Your task to perform on an android device: Go to battery settings Image 0: 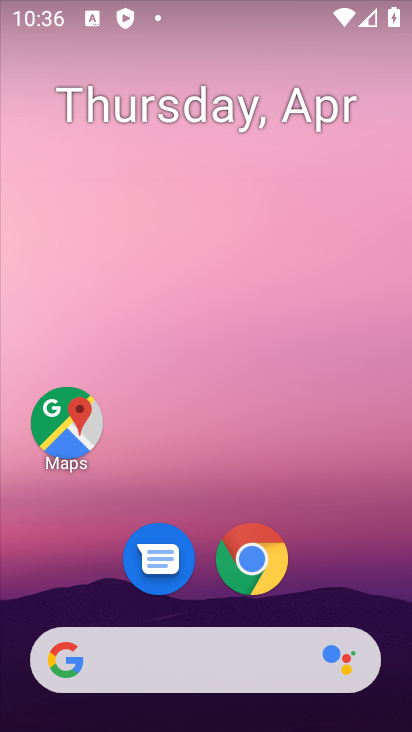
Step 0: drag from (280, 721) to (285, 125)
Your task to perform on an android device: Go to battery settings Image 1: 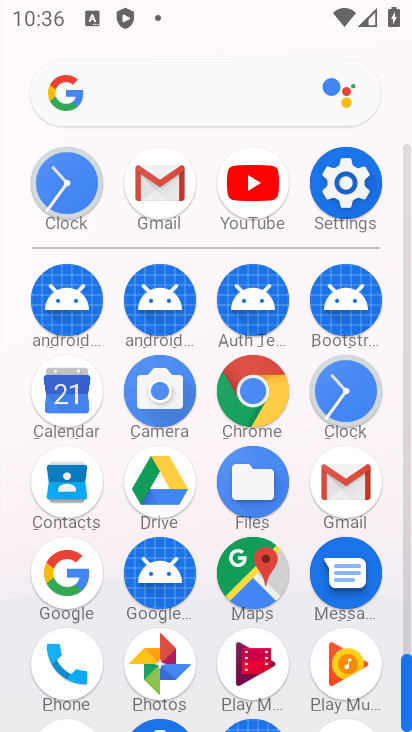
Step 1: click (352, 182)
Your task to perform on an android device: Go to battery settings Image 2: 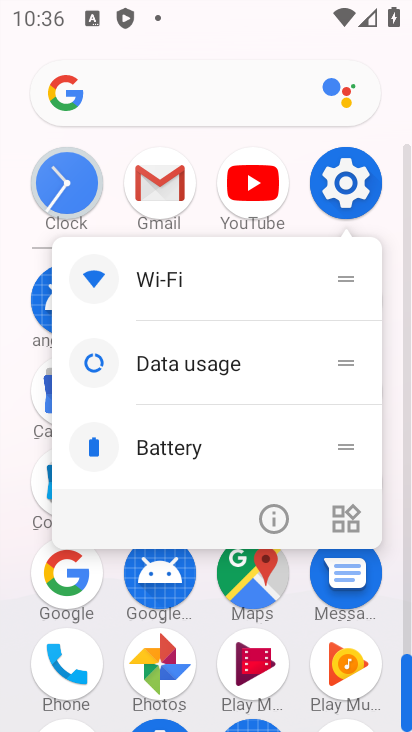
Step 2: click (187, 452)
Your task to perform on an android device: Go to battery settings Image 3: 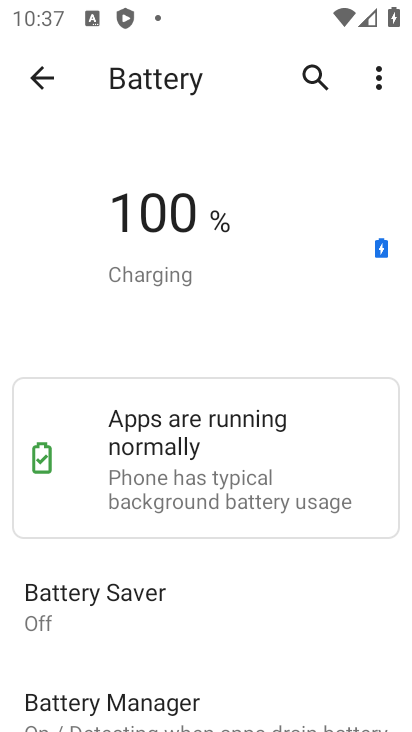
Step 3: task complete